Your task to perform on an android device: Turn on the flashlight Image 0: 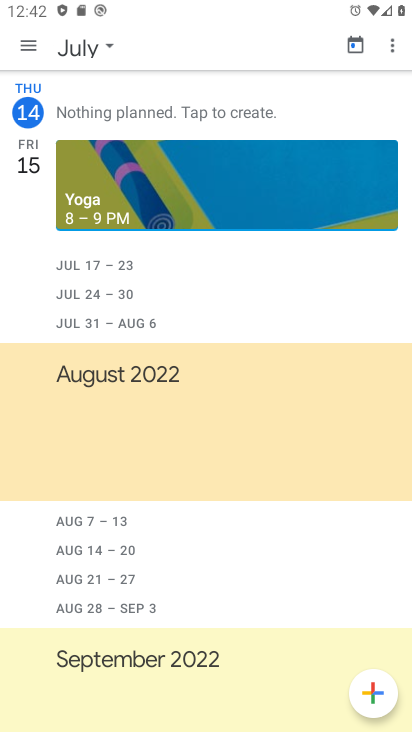
Step 0: drag from (236, 1) to (232, 421)
Your task to perform on an android device: Turn on the flashlight Image 1: 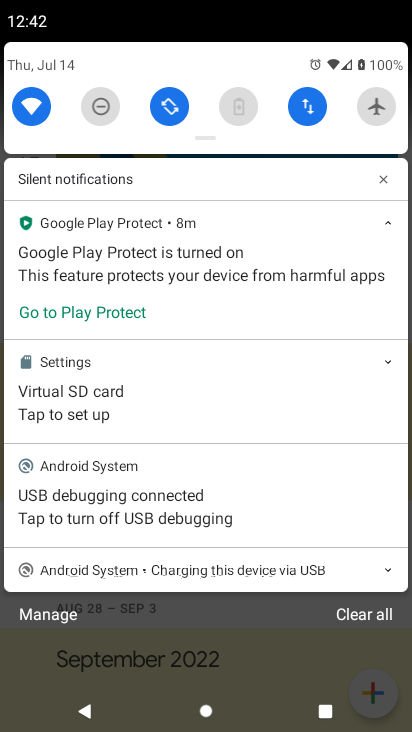
Step 1: task complete